Your task to perform on an android device: toggle javascript in the chrome app Image 0: 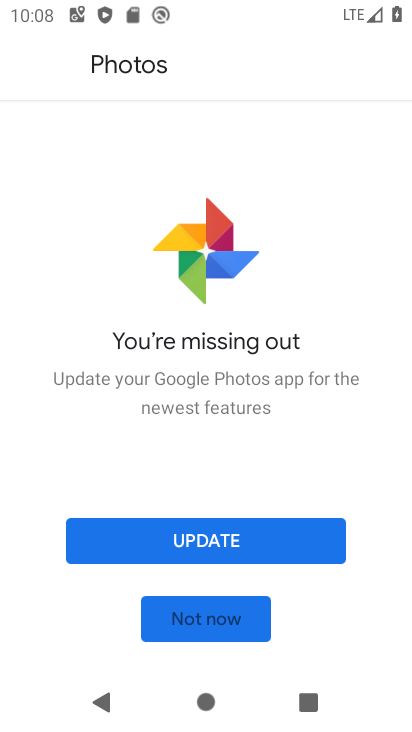
Step 0: press home button
Your task to perform on an android device: toggle javascript in the chrome app Image 1: 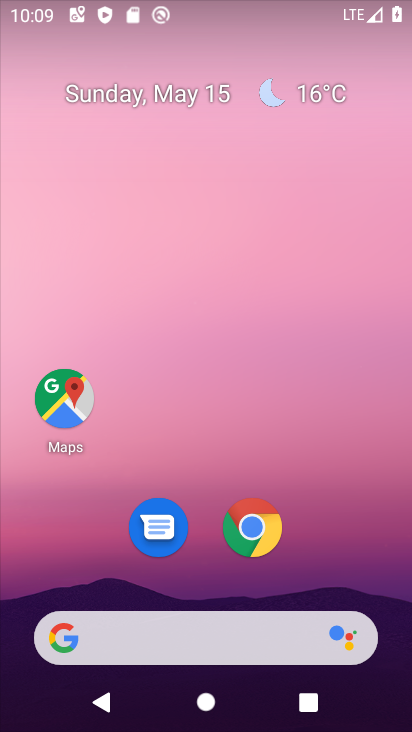
Step 1: click (253, 531)
Your task to perform on an android device: toggle javascript in the chrome app Image 2: 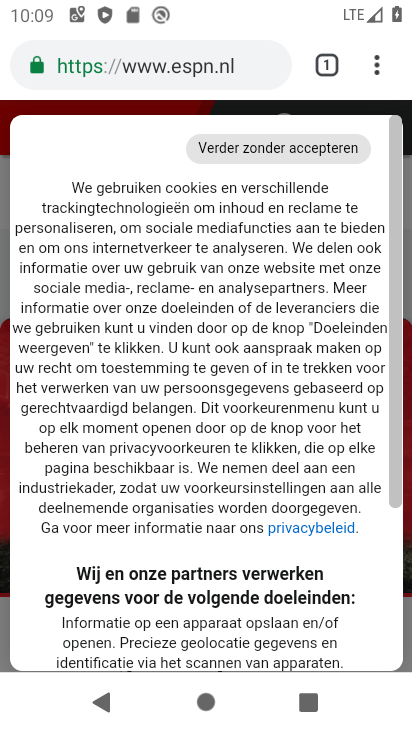
Step 2: click (375, 65)
Your task to perform on an android device: toggle javascript in the chrome app Image 3: 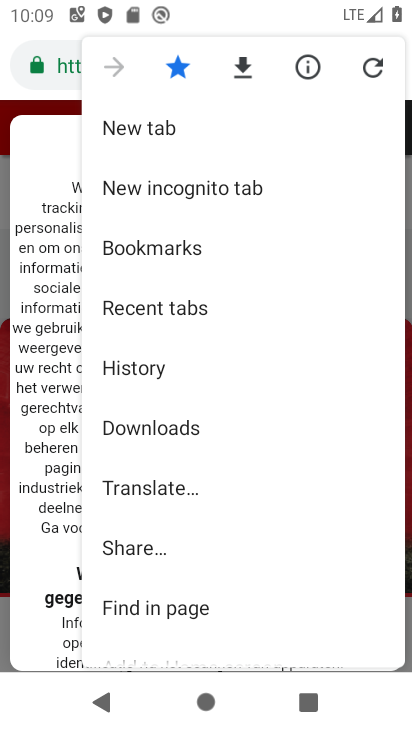
Step 3: drag from (228, 577) to (225, 153)
Your task to perform on an android device: toggle javascript in the chrome app Image 4: 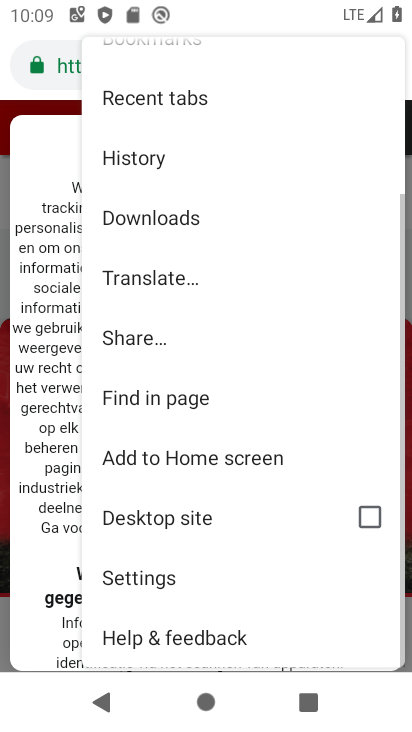
Step 4: click (136, 572)
Your task to perform on an android device: toggle javascript in the chrome app Image 5: 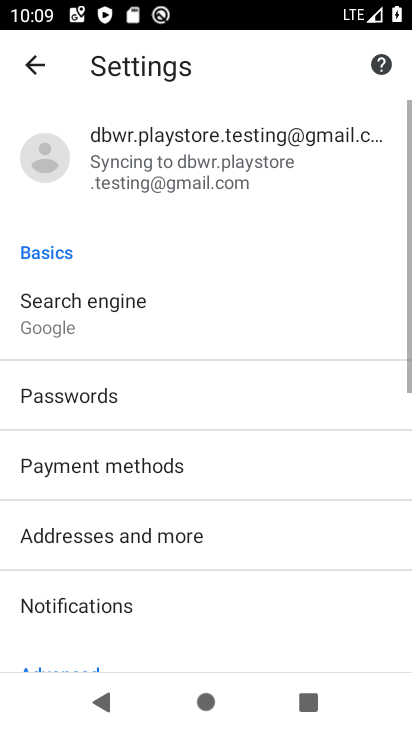
Step 5: drag from (243, 579) to (240, 131)
Your task to perform on an android device: toggle javascript in the chrome app Image 6: 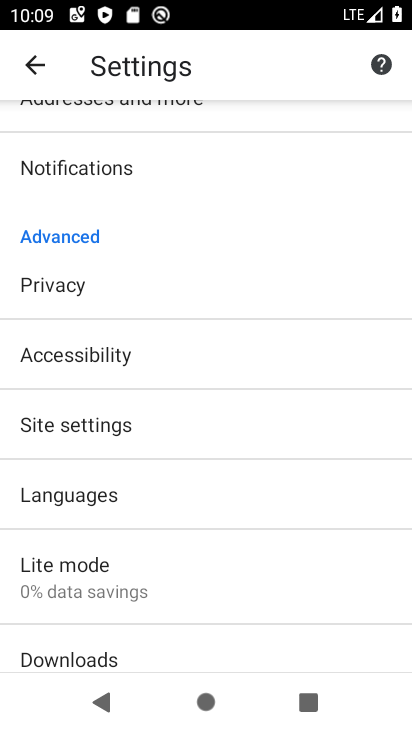
Step 6: click (74, 421)
Your task to perform on an android device: toggle javascript in the chrome app Image 7: 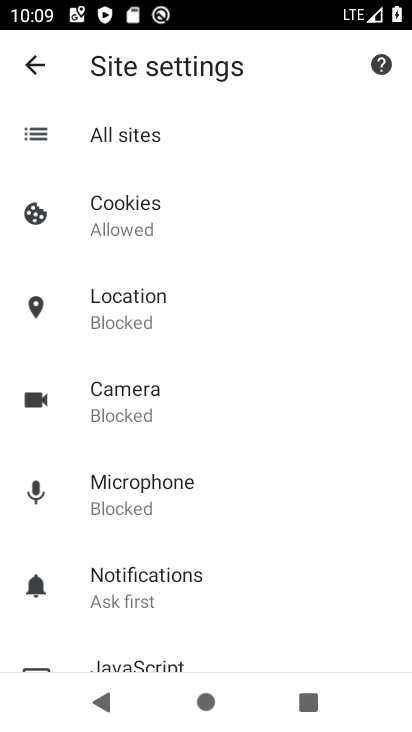
Step 7: drag from (296, 530) to (298, 249)
Your task to perform on an android device: toggle javascript in the chrome app Image 8: 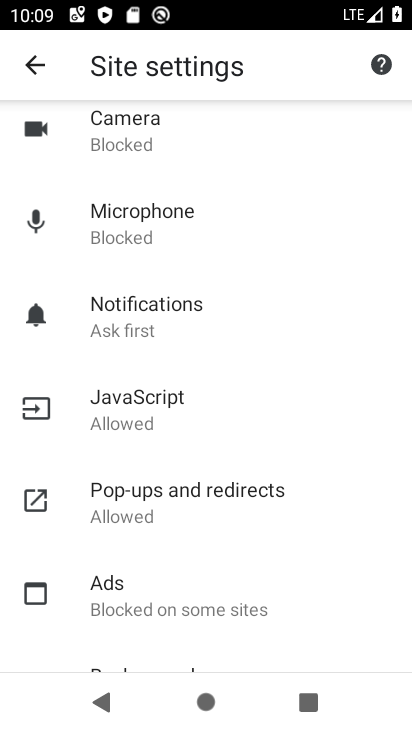
Step 8: click (128, 412)
Your task to perform on an android device: toggle javascript in the chrome app Image 9: 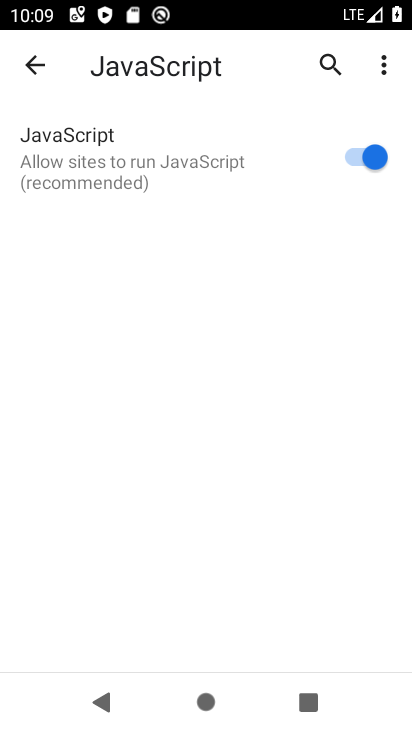
Step 9: click (370, 162)
Your task to perform on an android device: toggle javascript in the chrome app Image 10: 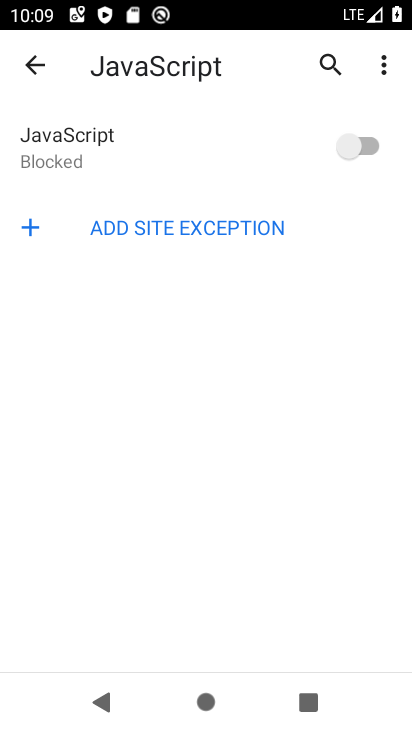
Step 10: task complete